Your task to perform on an android device: visit the assistant section in the google photos Image 0: 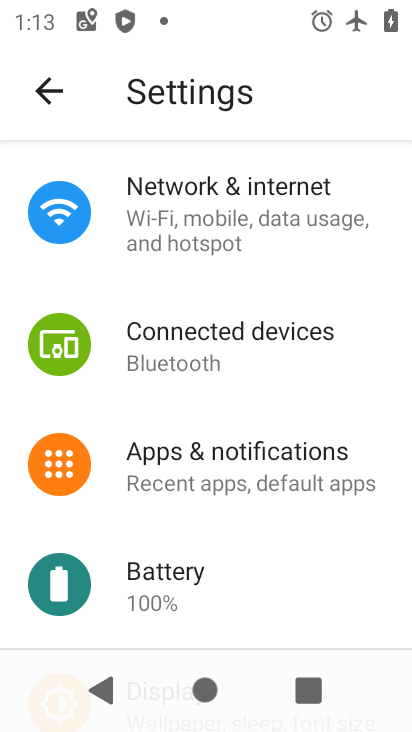
Step 0: press home button
Your task to perform on an android device: visit the assistant section in the google photos Image 1: 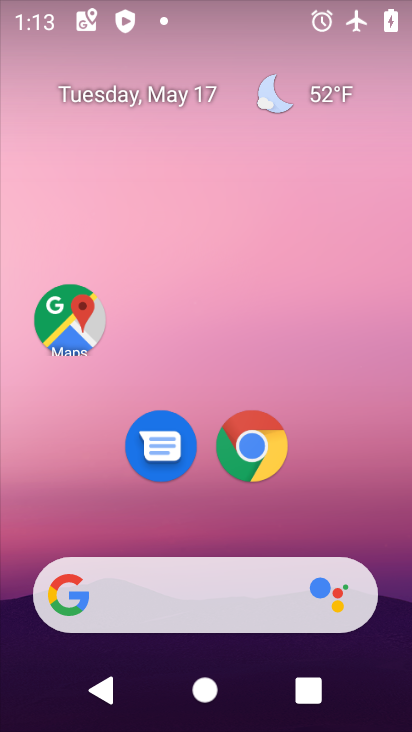
Step 1: drag from (178, 529) to (255, 47)
Your task to perform on an android device: visit the assistant section in the google photos Image 2: 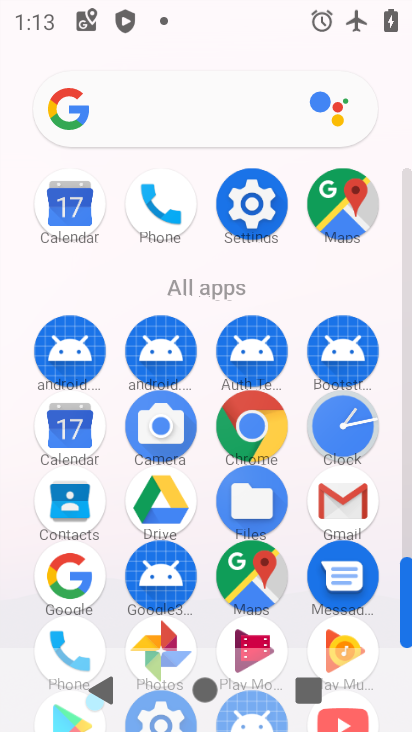
Step 2: click (151, 632)
Your task to perform on an android device: visit the assistant section in the google photos Image 3: 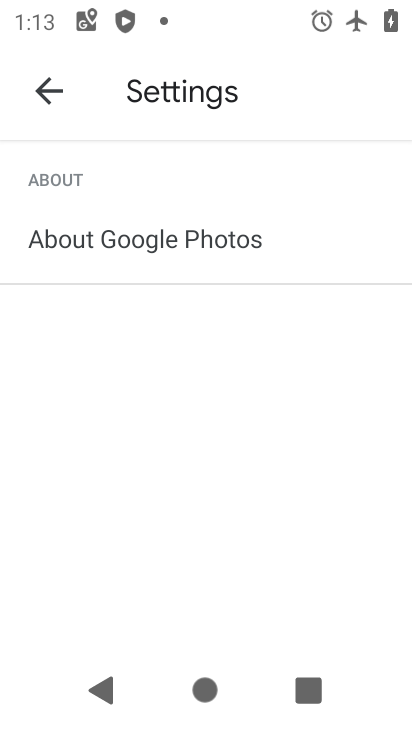
Step 3: click (48, 93)
Your task to perform on an android device: visit the assistant section in the google photos Image 4: 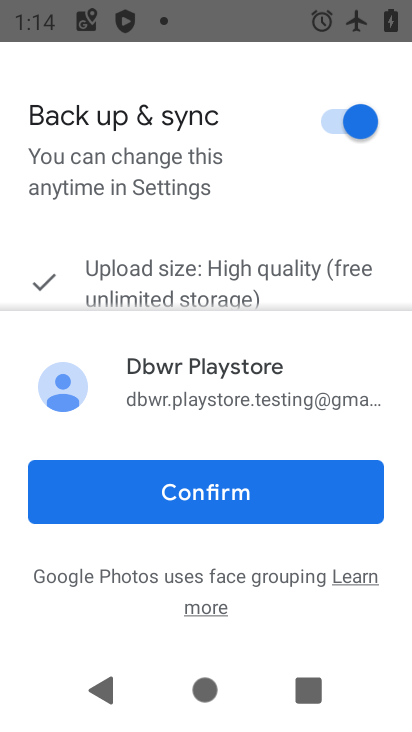
Step 4: click (209, 489)
Your task to perform on an android device: visit the assistant section in the google photos Image 5: 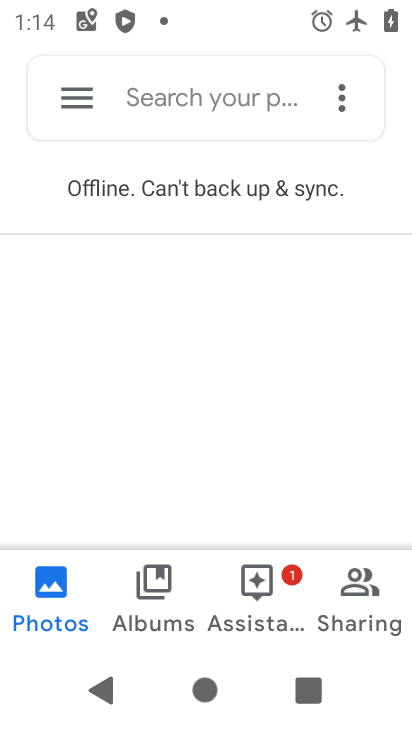
Step 5: click (291, 592)
Your task to perform on an android device: visit the assistant section in the google photos Image 6: 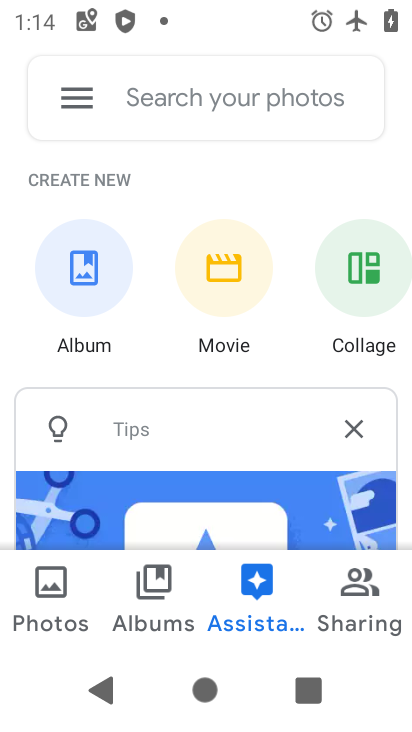
Step 6: task complete